Your task to perform on an android device: change alarm snooze length Image 0: 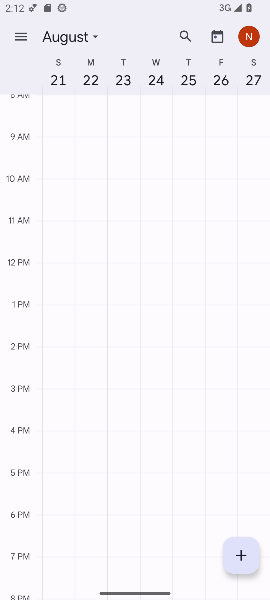
Step 0: press home button
Your task to perform on an android device: change alarm snooze length Image 1: 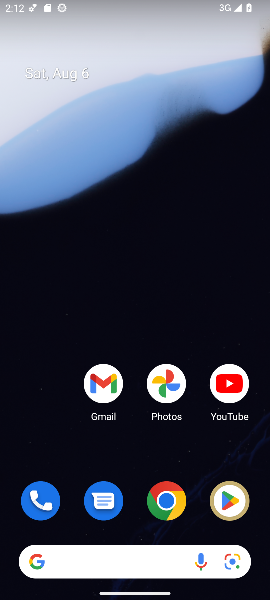
Step 1: drag from (150, 495) to (214, 63)
Your task to perform on an android device: change alarm snooze length Image 2: 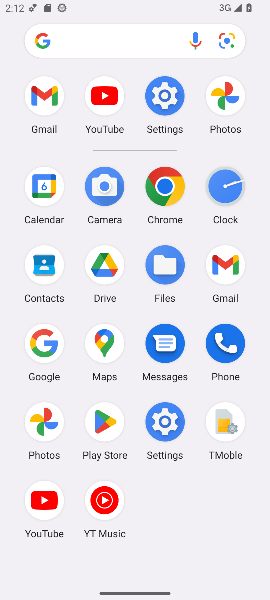
Step 2: click (230, 190)
Your task to perform on an android device: change alarm snooze length Image 3: 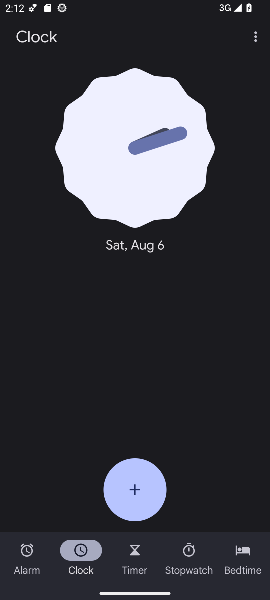
Step 3: click (251, 38)
Your task to perform on an android device: change alarm snooze length Image 4: 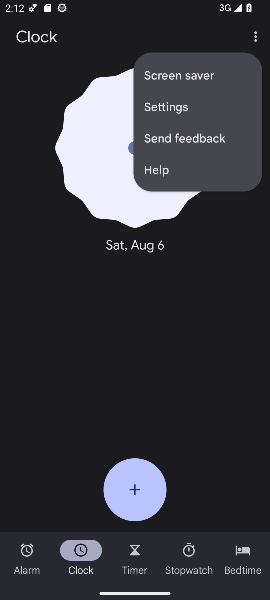
Step 4: click (177, 104)
Your task to perform on an android device: change alarm snooze length Image 5: 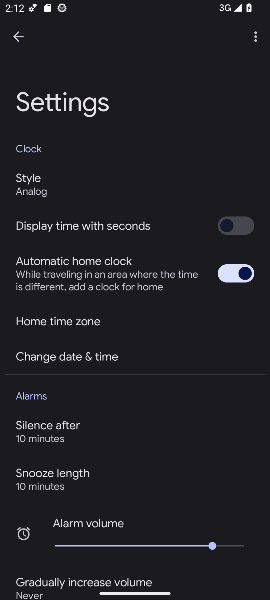
Step 5: click (57, 476)
Your task to perform on an android device: change alarm snooze length Image 6: 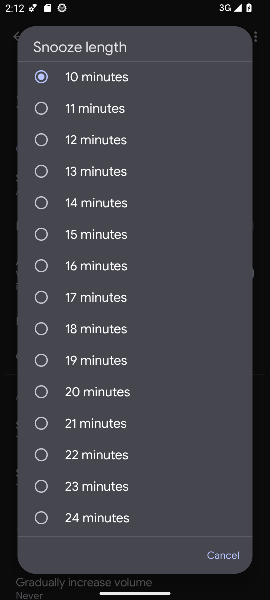
Step 6: click (40, 239)
Your task to perform on an android device: change alarm snooze length Image 7: 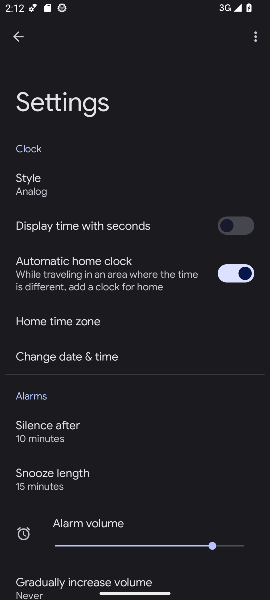
Step 7: task complete